Your task to perform on an android device: change notifications settings Image 0: 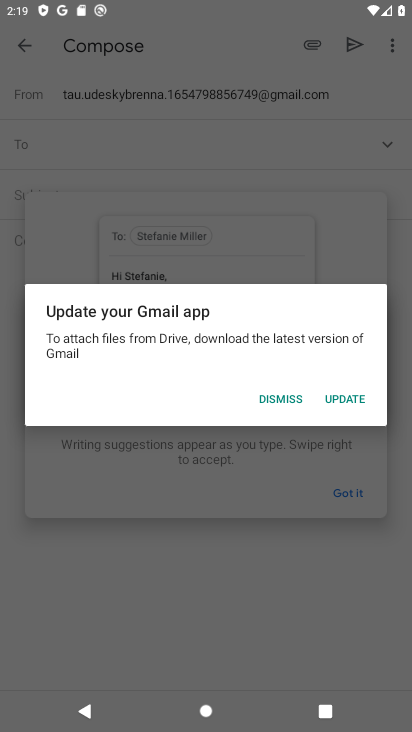
Step 0: click (321, 399)
Your task to perform on an android device: change notifications settings Image 1: 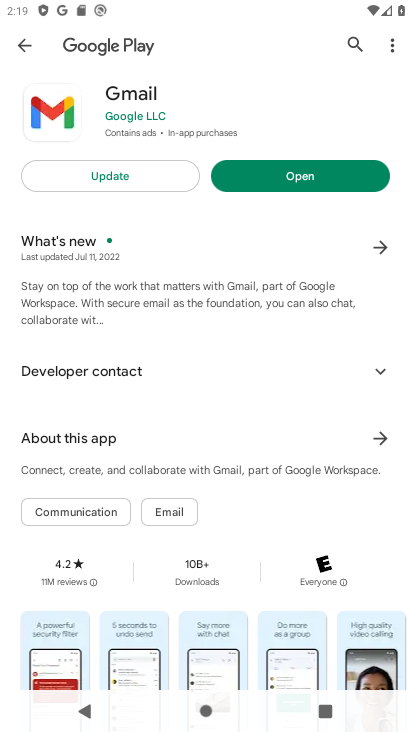
Step 1: click (141, 176)
Your task to perform on an android device: change notifications settings Image 2: 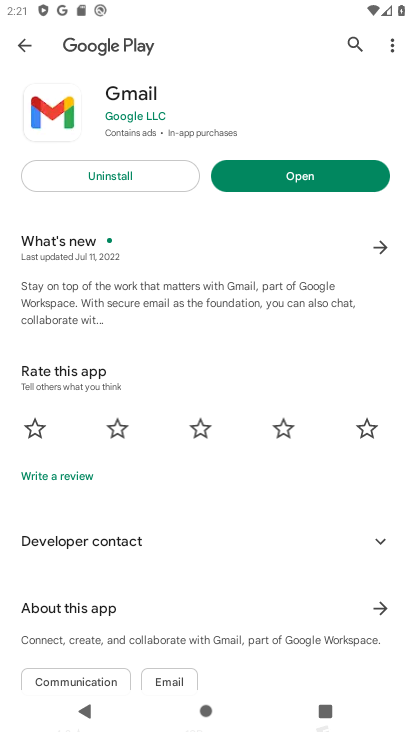
Step 2: press home button
Your task to perform on an android device: change notifications settings Image 3: 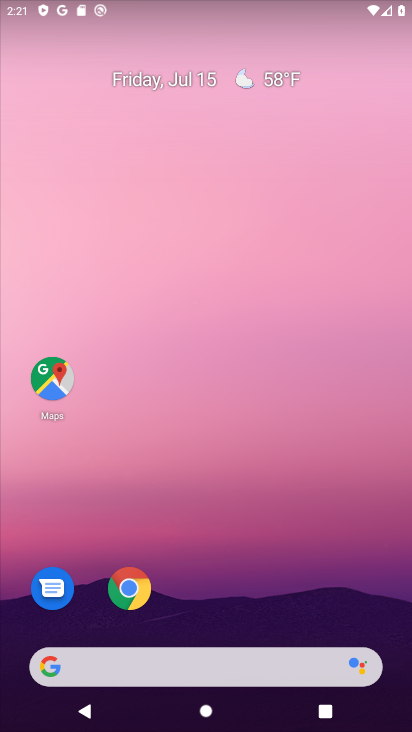
Step 3: drag from (208, 609) to (322, 33)
Your task to perform on an android device: change notifications settings Image 4: 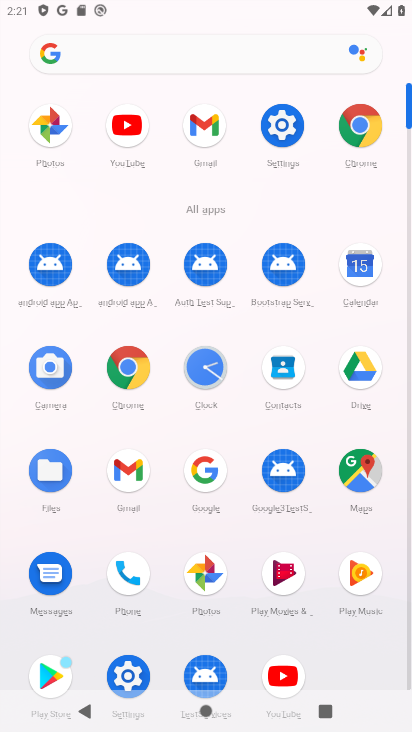
Step 4: click (282, 120)
Your task to perform on an android device: change notifications settings Image 5: 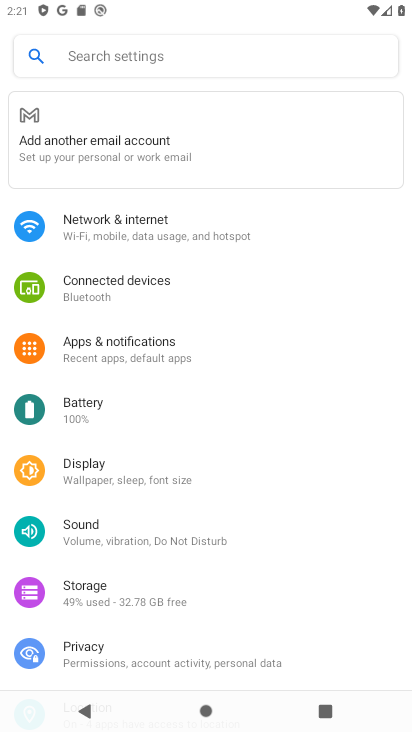
Step 5: click (62, 340)
Your task to perform on an android device: change notifications settings Image 6: 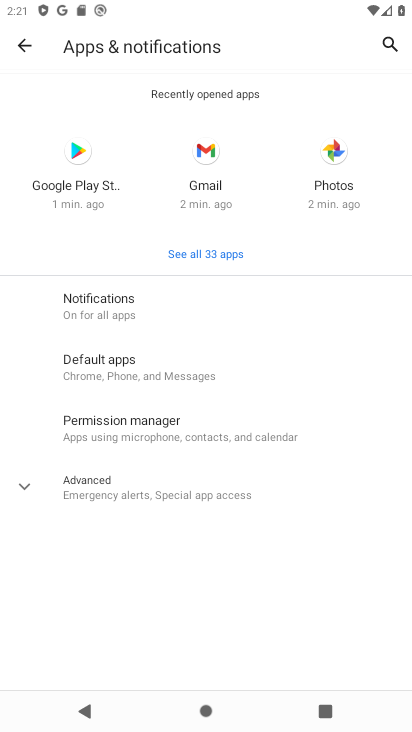
Step 6: task complete